Your task to perform on an android device: toggle show notifications on the lock screen Image 0: 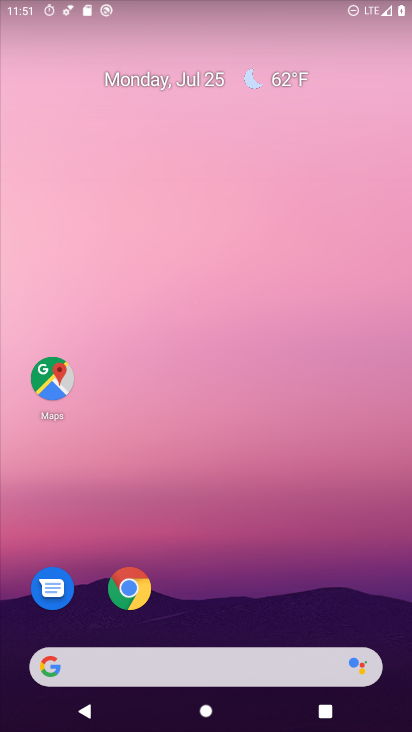
Step 0: drag from (1, 707) to (264, 60)
Your task to perform on an android device: toggle show notifications on the lock screen Image 1: 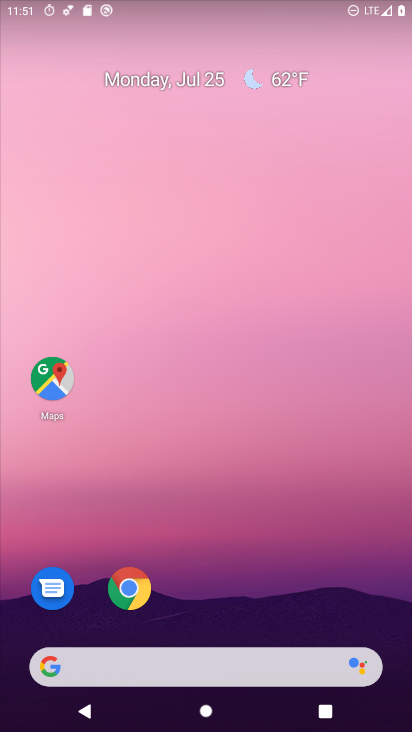
Step 1: drag from (52, 470) to (198, 93)
Your task to perform on an android device: toggle show notifications on the lock screen Image 2: 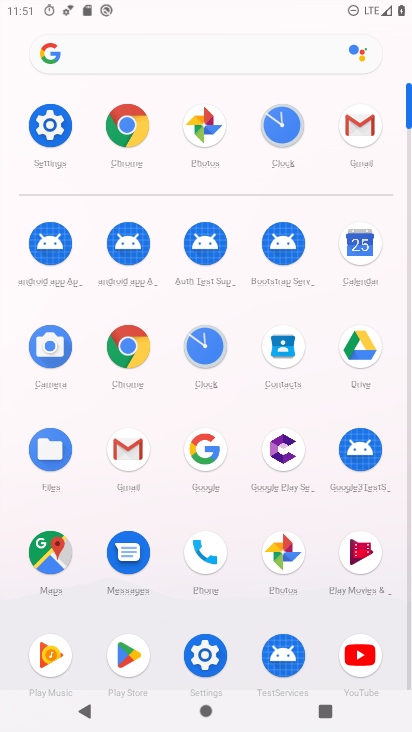
Step 2: click (53, 124)
Your task to perform on an android device: toggle show notifications on the lock screen Image 3: 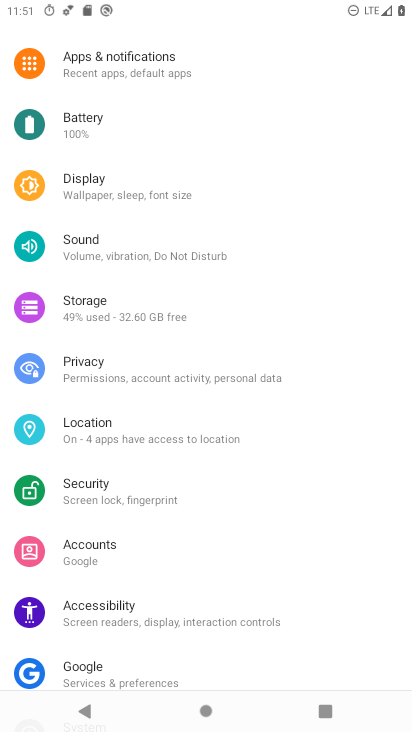
Step 3: click (163, 78)
Your task to perform on an android device: toggle show notifications on the lock screen Image 4: 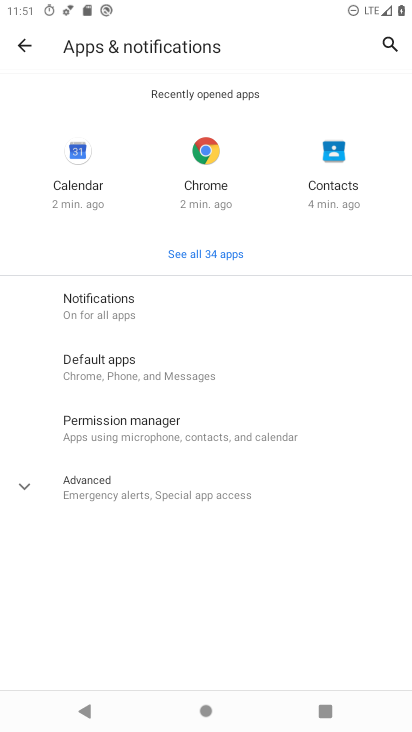
Step 4: click (163, 309)
Your task to perform on an android device: toggle show notifications on the lock screen Image 5: 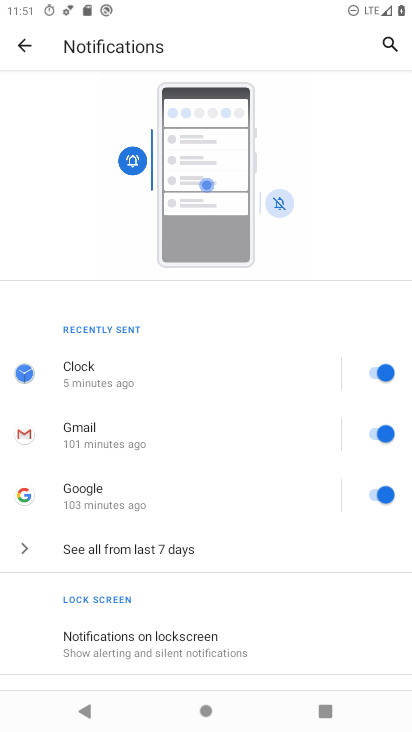
Step 5: click (148, 647)
Your task to perform on an android device: toggle show notifications on the lock screen Image 6: 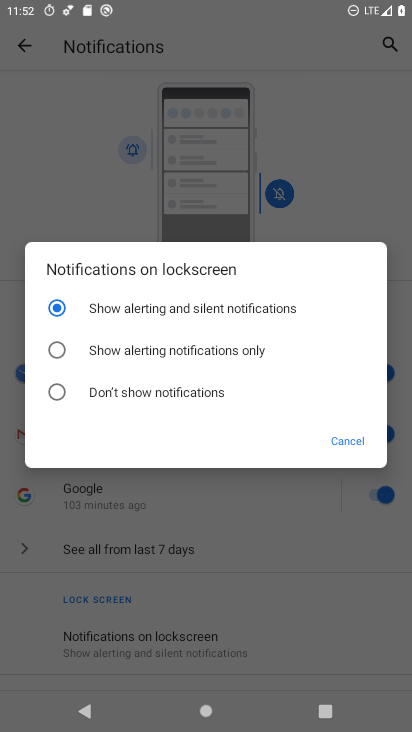
Step 6: click (109, 388)
Your task to perform on an android device: toggle show notifications on the lock screen Image 7: 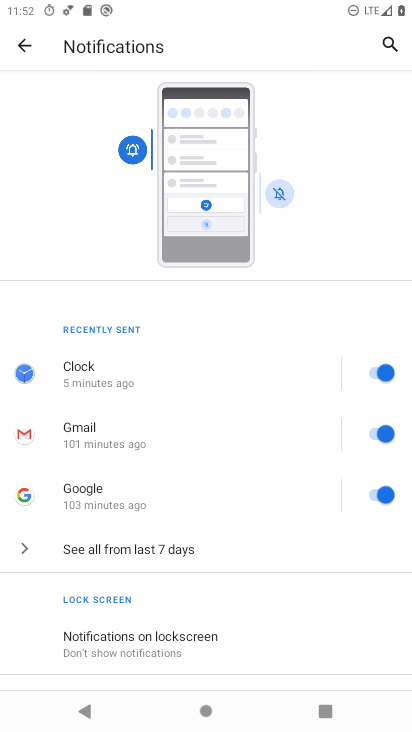
Step 7: task complete